Your task to perform on an android device: Go to display settings Image 0: 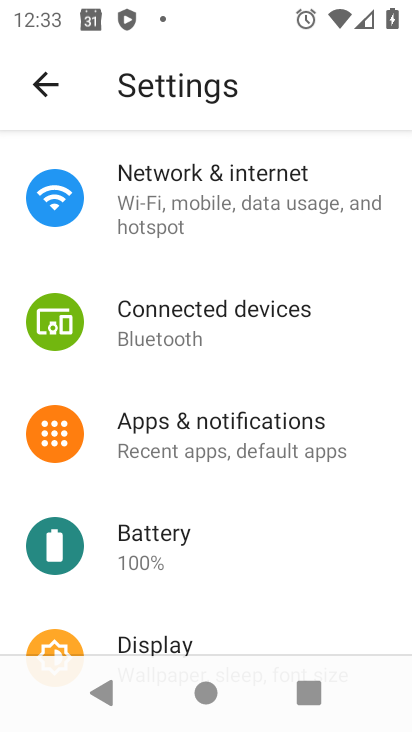
Step 0: drag from (184, 557) to (255, 269)
Your task to perform on an android device: Go to display settings Image 1: 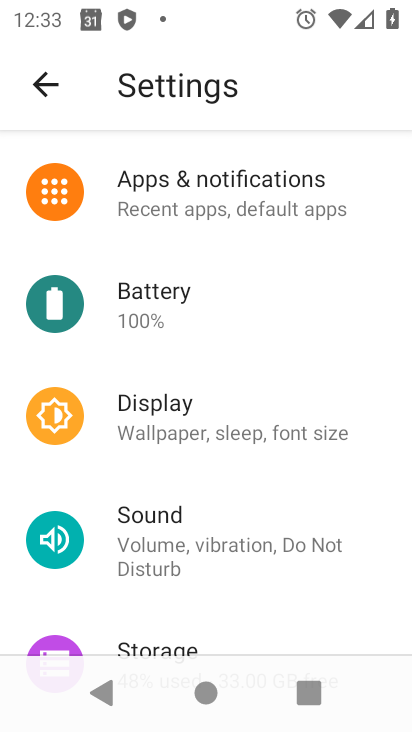
Step 1: click (153, 408)
Your task to perform on an android device: Go to display settings Image 2: 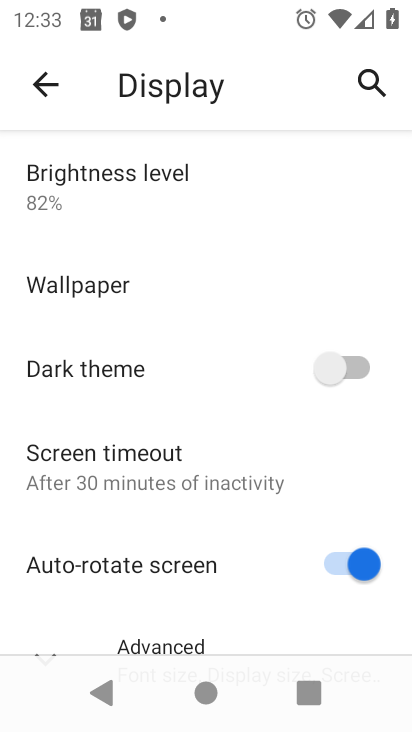
Step 2: task complete